Your task to perform on an android device: Open location settings Image 0: 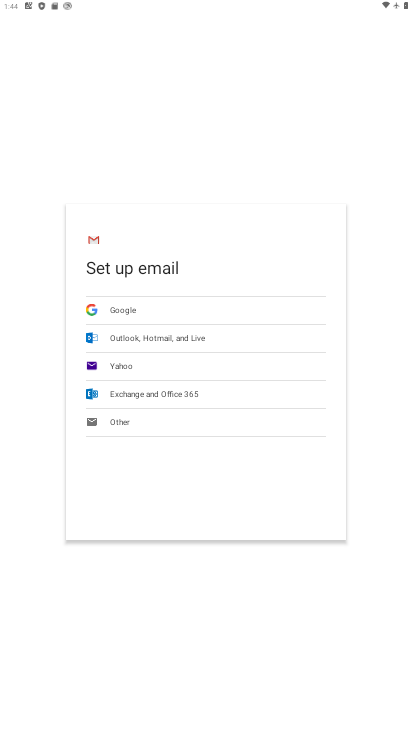
Step 0: press home button
Your task to perform on an android device: Open location settings Image 1: 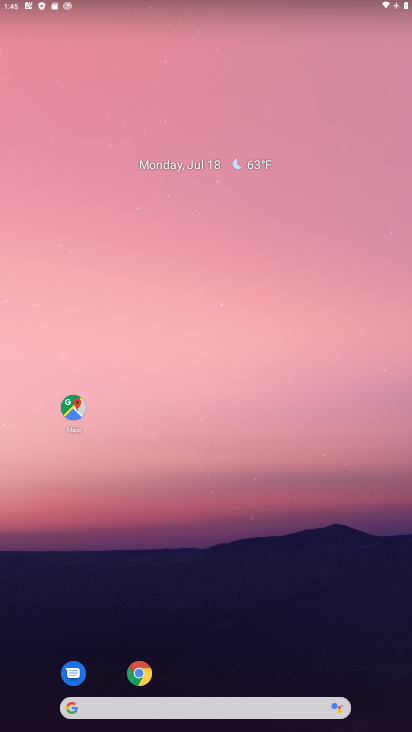
Step 1: drag from (209, 661) to (201, 155)
Your task to perform on an android device: Open location settings Image 2: 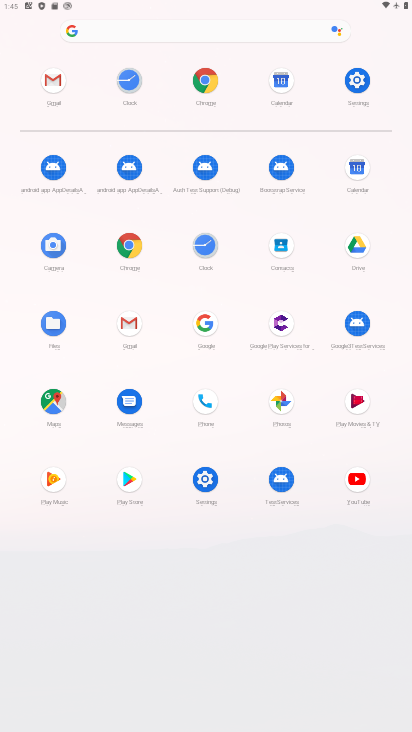
Step 2: click (350, 80)
Your task to perform on an android device: Open location settings Image 3: 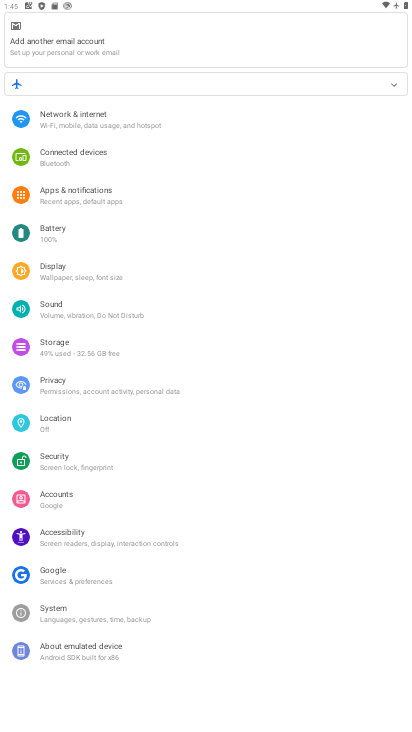
Step 3: click (45, 426)
Your task to perform on an android device: Open location settings Image 4: 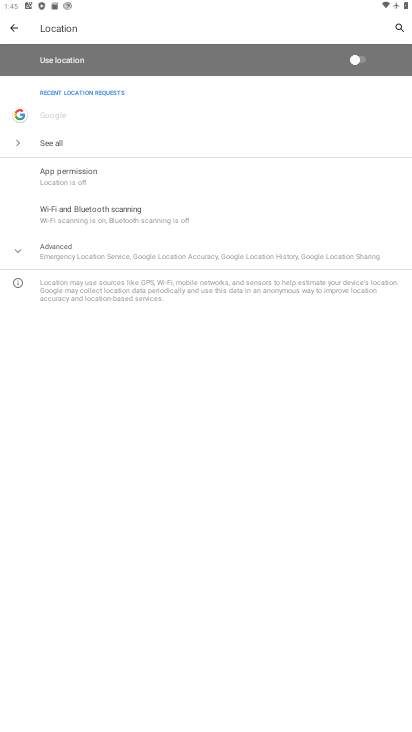
Step 4: task complete